Your task to perform on an android device: Go to sound settings Image 0: 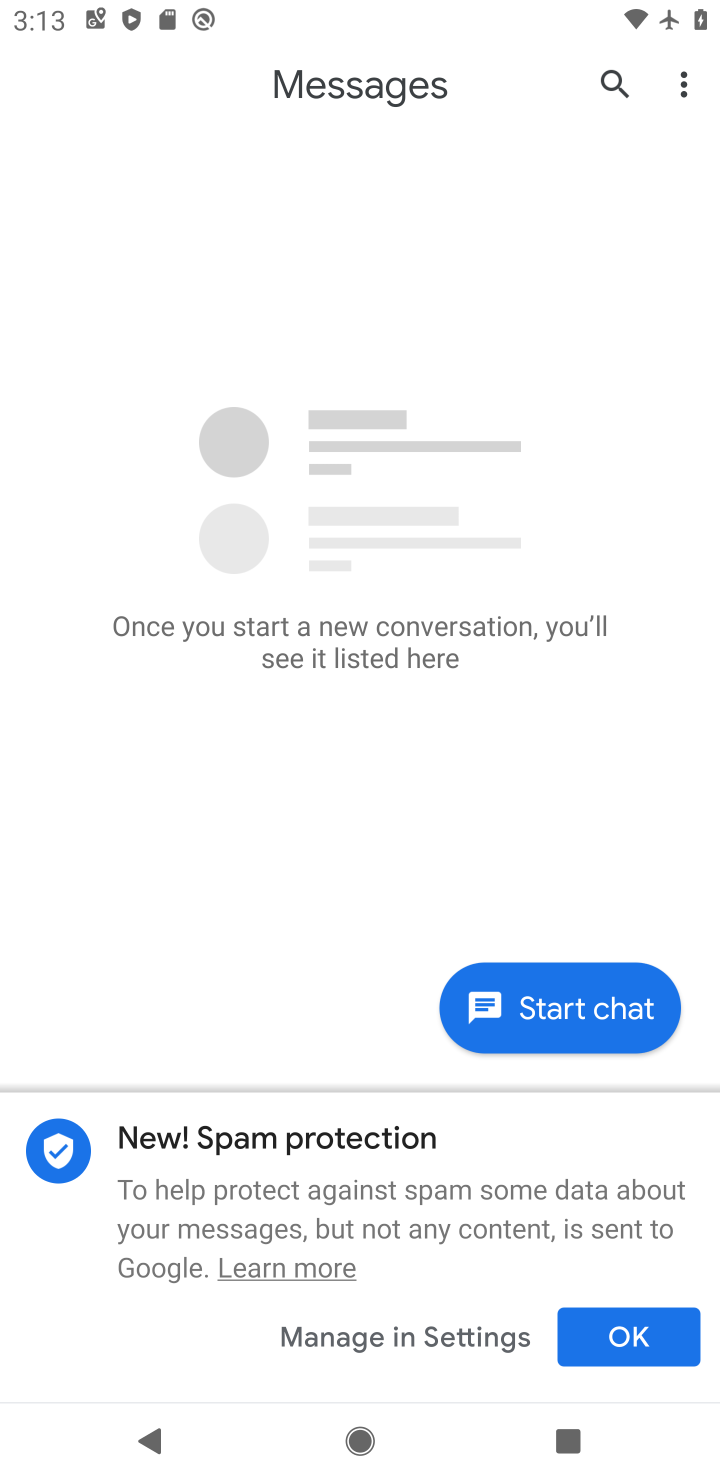
Step 0: press home button
Your task to perform on an android device: Go to sound settings Image 1: 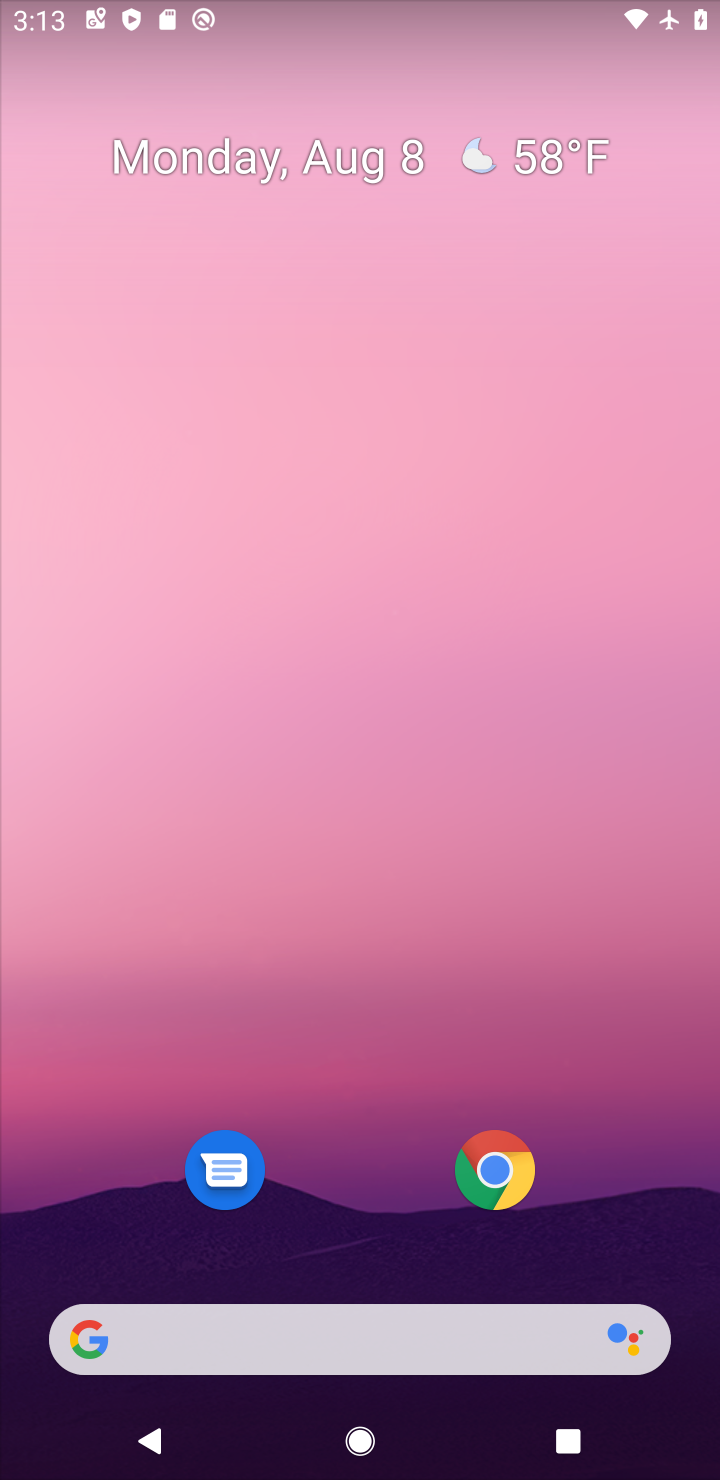
Step 1: drag from (333, 1112) to (333, 514)
Your task to perform on an android device: Go to sound settings Image 2: 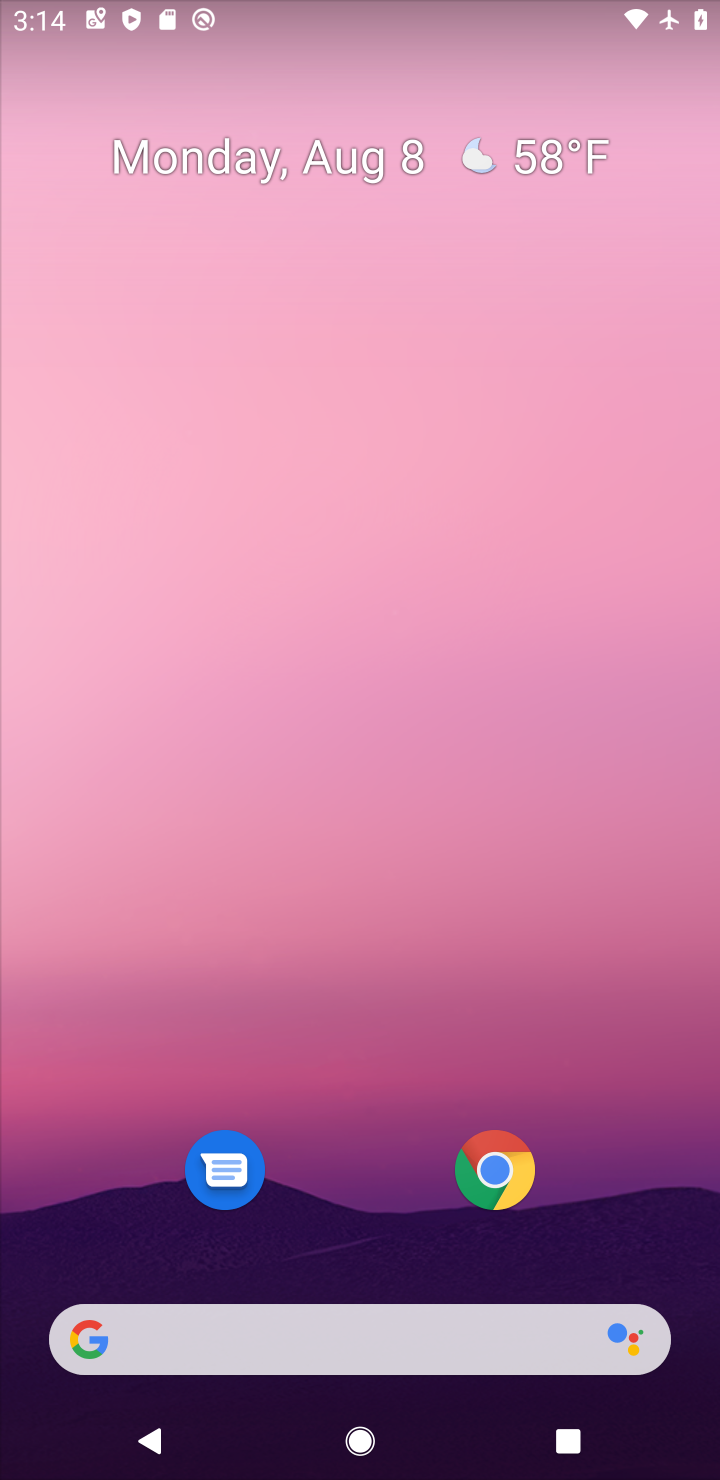
Step 2: drag from (316, 1137) to (341, 475)
Your task to perform on an android device: Go to sound settings Image 3: 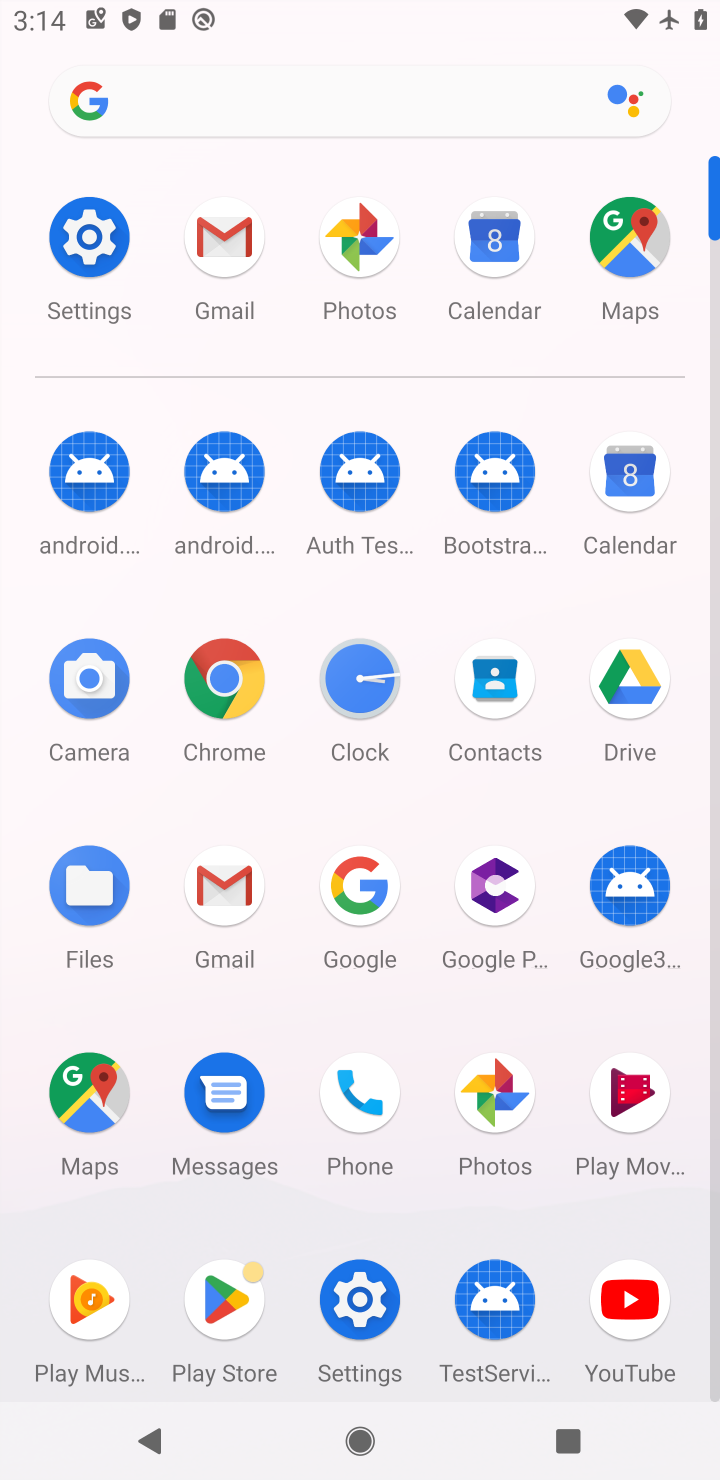
Step 3: click (83, 229)
Your task to perform on an android device: Go to sound settings Image 4: 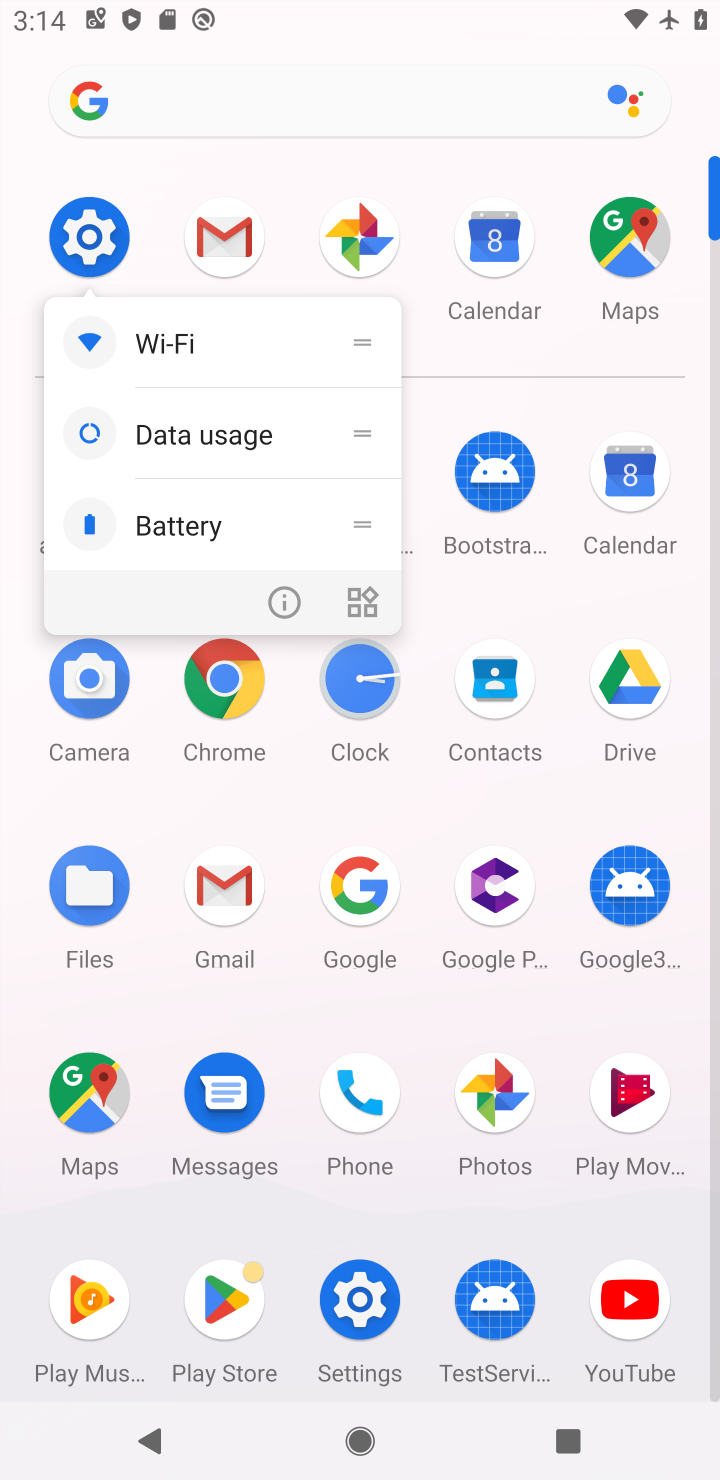
Step 4: click (83, 229)
Your task to perform on an android device: Go to sound settings Image 5: 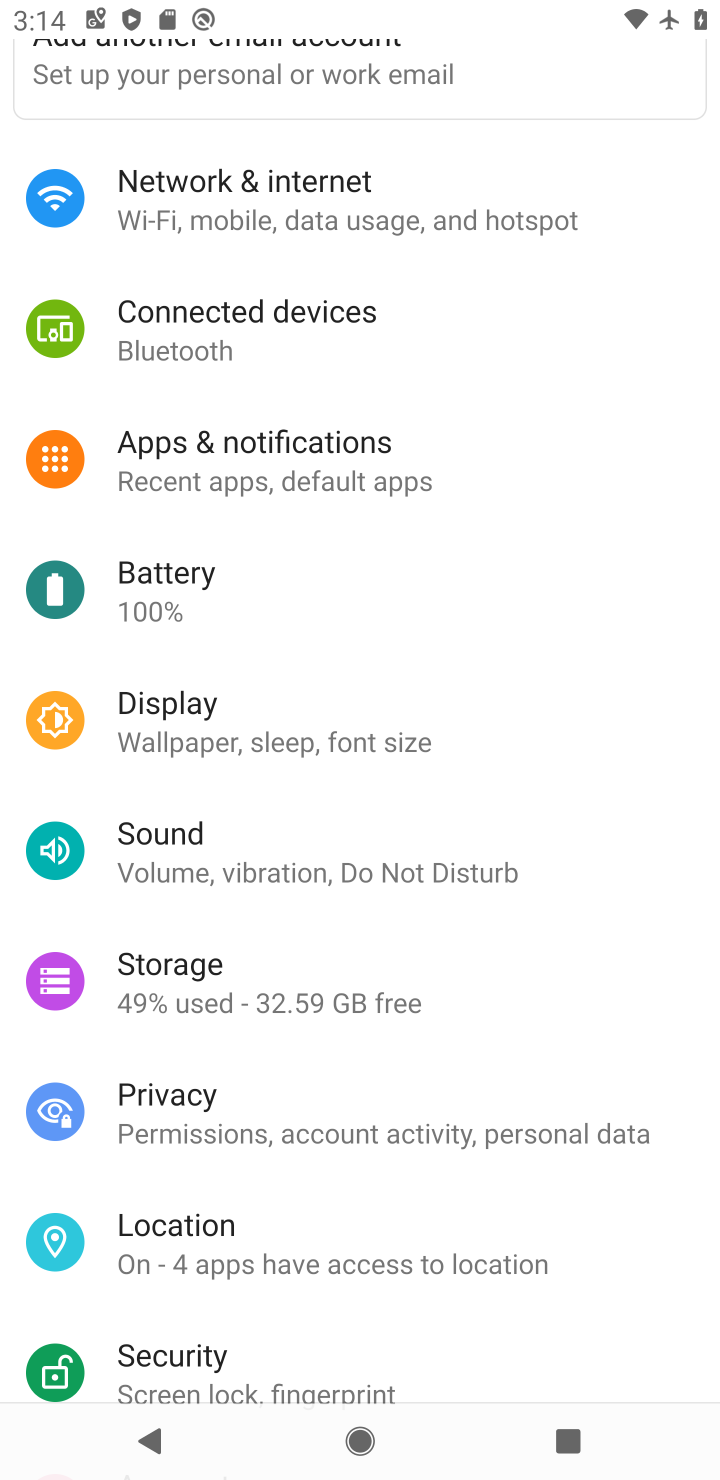
Step 5: click (249, 855)
Your task to perform on an android device: Go to sound settings Image 6: 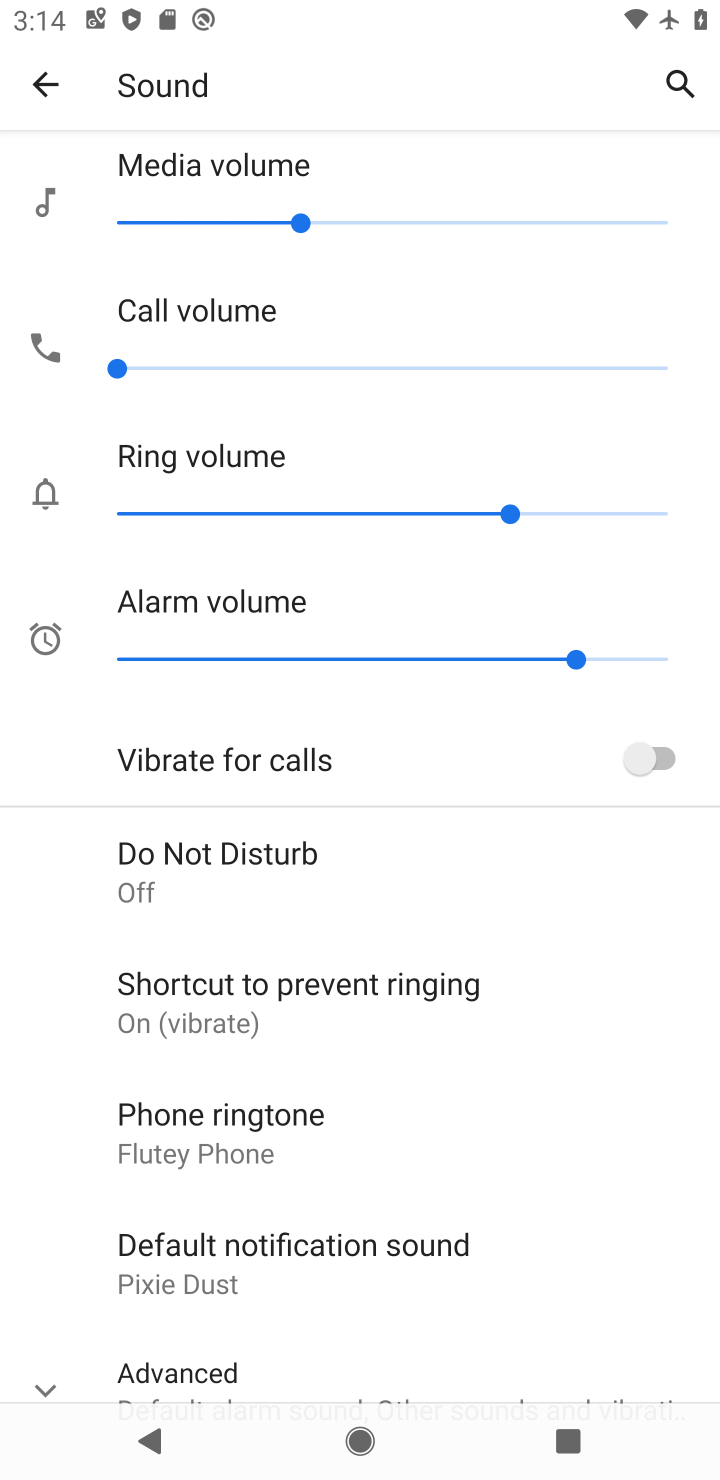
Step 6: task complete